Your task to perform on an android device: turn off location history Image 0: 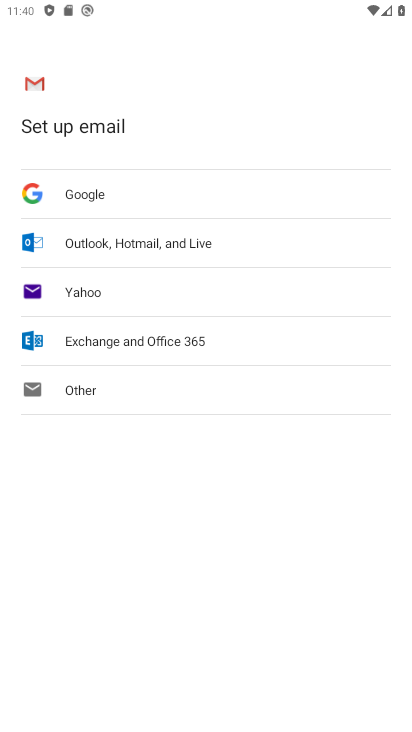
Step 0: press home button
Your task to perform on an android device: turn off location history Image 1: 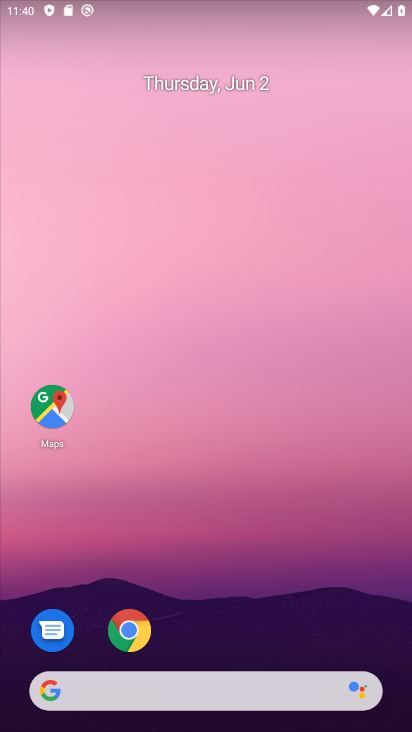
Step 1: click (296, 28)
Your task to perform on an android device: turn off location history Image 2: 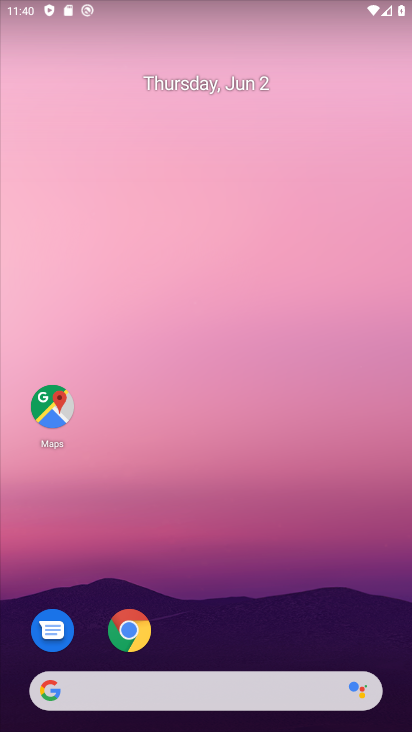
Step 2: drag from (213, 678) to (301, 78)
Your task to perform on an android device: turn off location history Image 3: 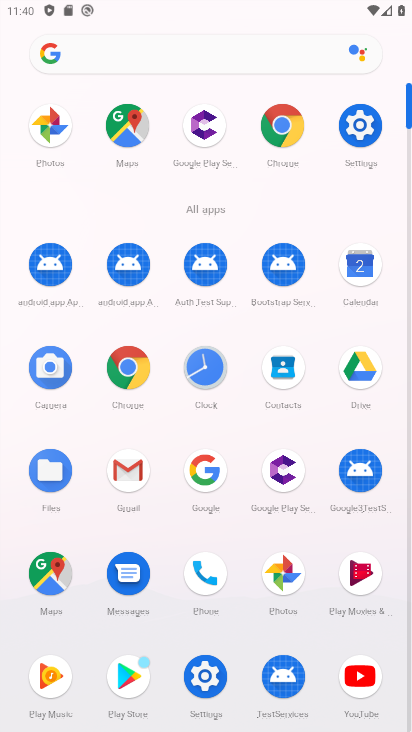
Step 3: drag from (212, 569) to (265, 325)
Your task to perform on an android device: turn off location history Image 4: 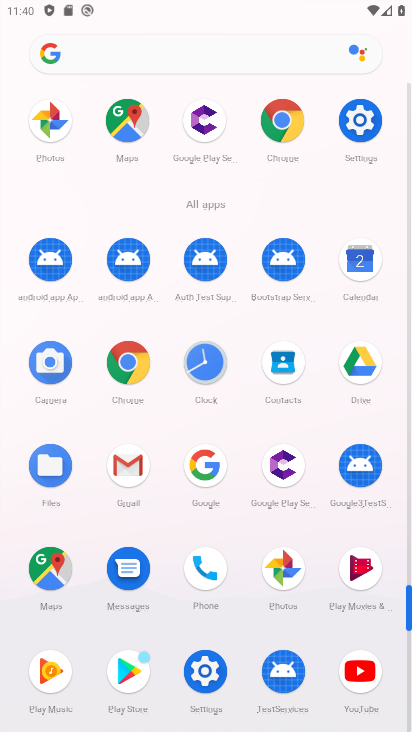
Step 4: click (215, 656)
Your task to perform on an android device: turn off location history Image 5: 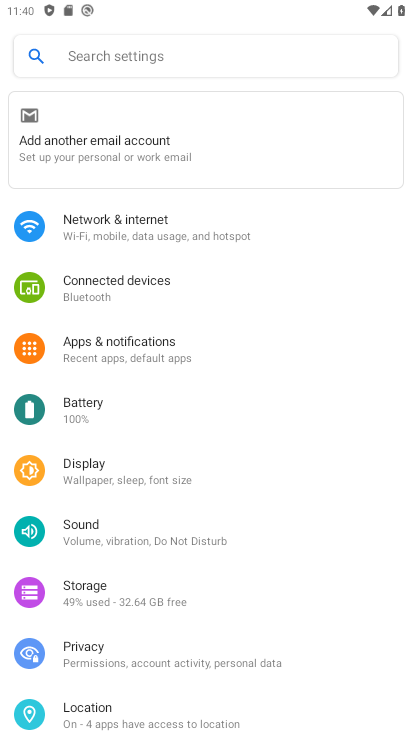
Step 5: click (124, 708)
Your task to perform on an android device: turn off location history Image 6: 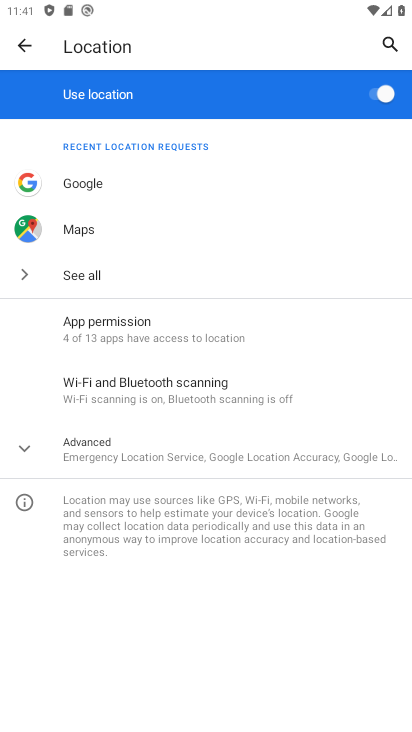
Step 6: click (203, 441)
Your task to perform on an android device: turn off location history Image 7: 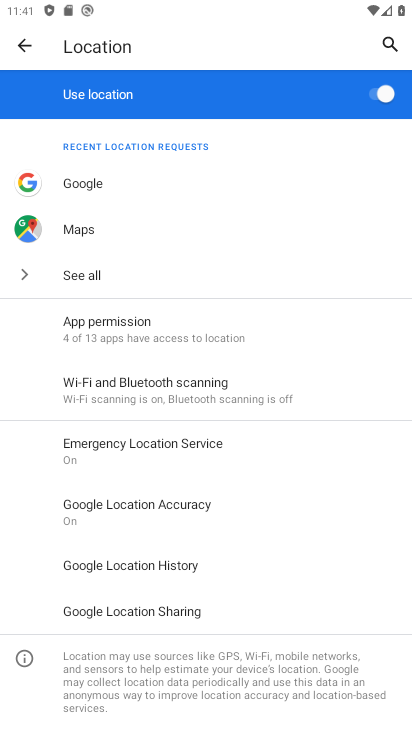
Step 7: click (213, 571)
Your task to perform on an android device: turn off location history Image 8: 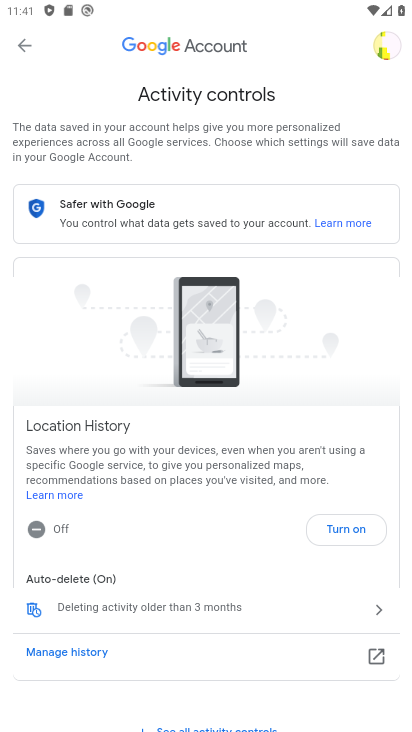
Step 8: task complete